Your task to perform on an android device: Open calendar and show me the second week of next month Image 0: 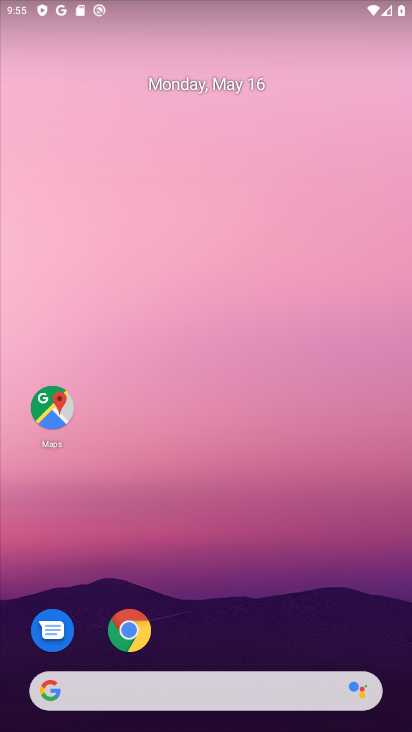
Step 0: drag from (176, 625) to (224, 23)
Your task to perform on an android device: Open calendar and show me the second week of next month Image 1: 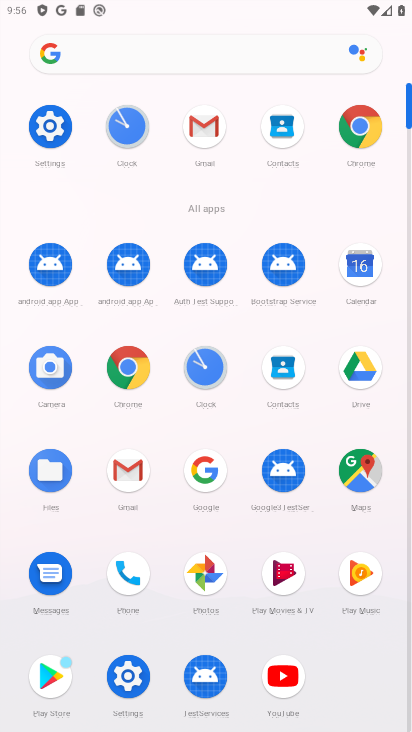
Step 1: click (368, 276)
Your task to perform on an android device: Open calendar and show me the second week of next month Image 2: 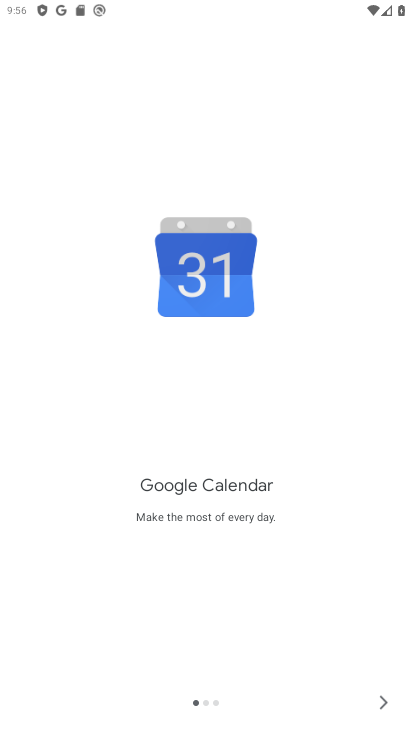
Step 2: click (372, 721)
Your task to perform on an android device: Open calendar and show me the second week of next month Image 3: 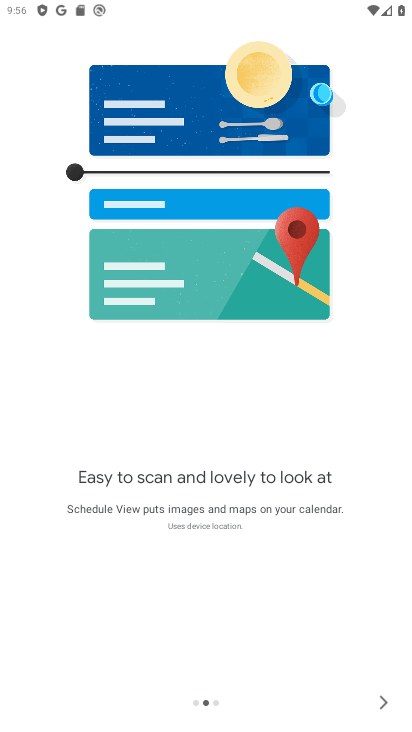
Step 3: click (384, 701)
Your task to perform on an android device: Open calendar and show me the second week of next month Image 4: 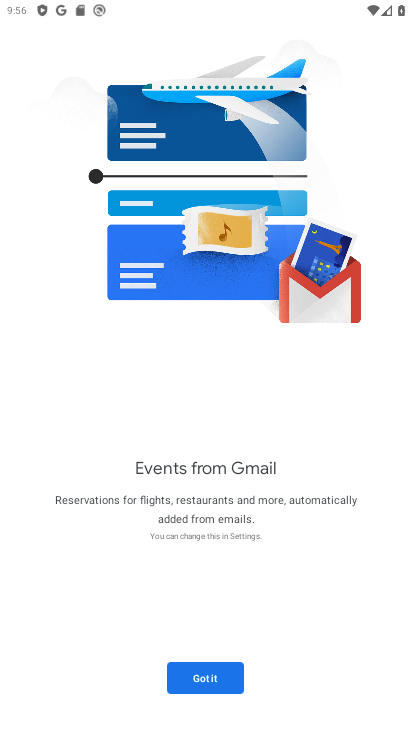
Step 4: click (199, 676)
Your task to perform on an android device: Open calendar and show me the second week of next month Image 5: 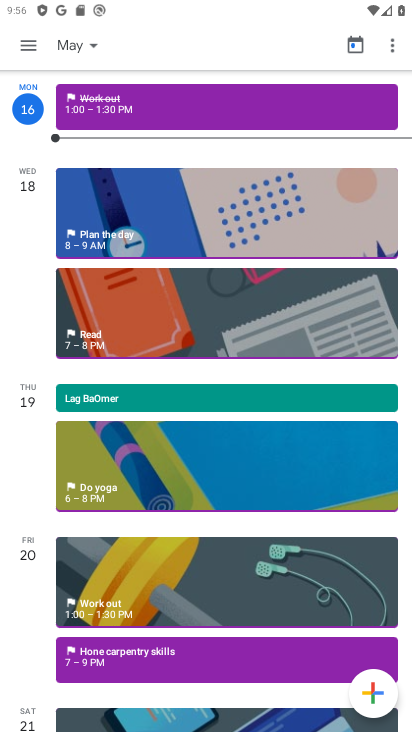
Step 5: click (32, 46)
Your task to perform on an android device: Open calendar and show me the second week of next month Image 6: 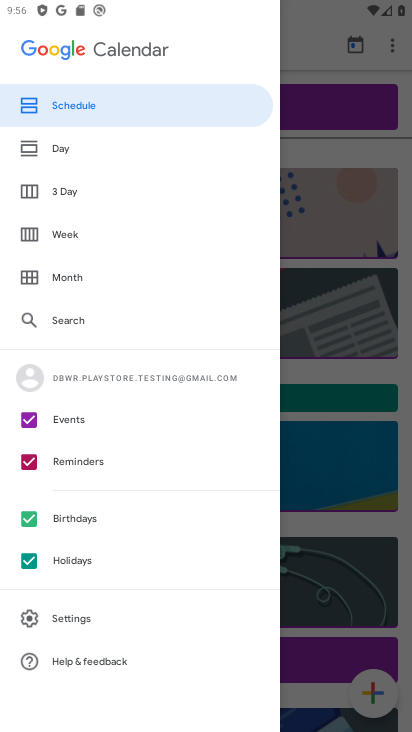
Step 6: click (57, 232)
Your task to perform on an android device: Open calendar and show me the second week of next month Image 7: 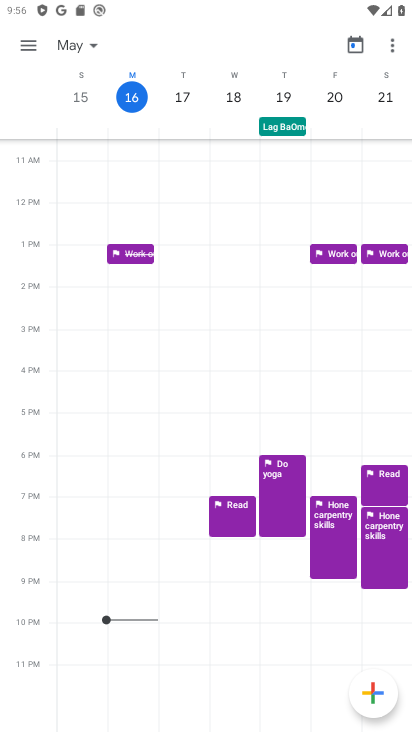
Step 7: task complete